Your task to perform on an android device: turn on sleep mode Image 0: 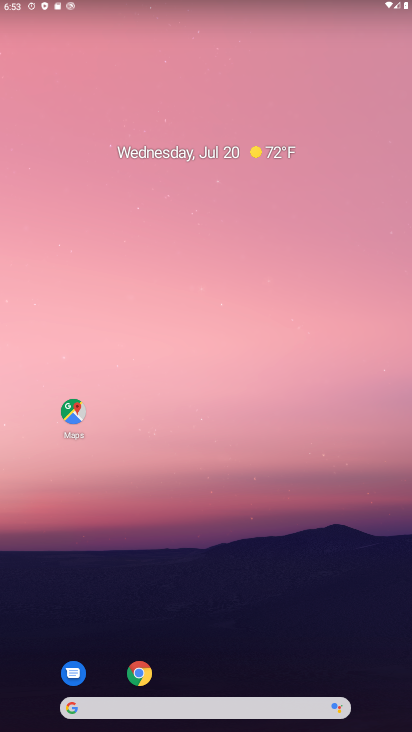
Step 0: drag from (314, 656) to (177, 40)
Your task to perform on an android device: turn on sleep mode Image 1: 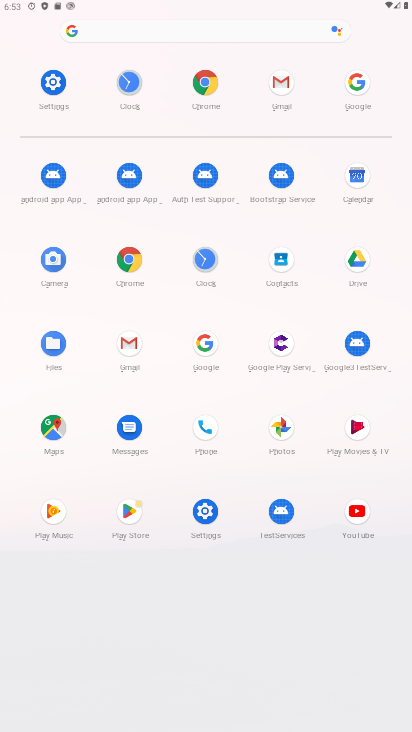
Step 1: click (214, 524)
Your task to perform on an android device: turn on sleep mode Image 2: 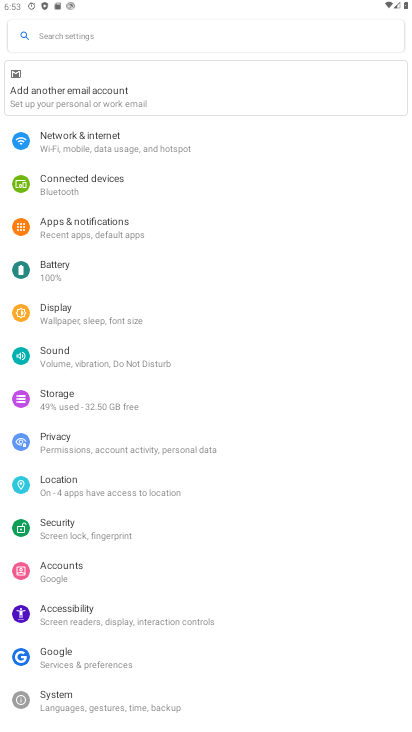
Step 2: task complete